Your task to perform on an android device: Open Google Maps Image 0: 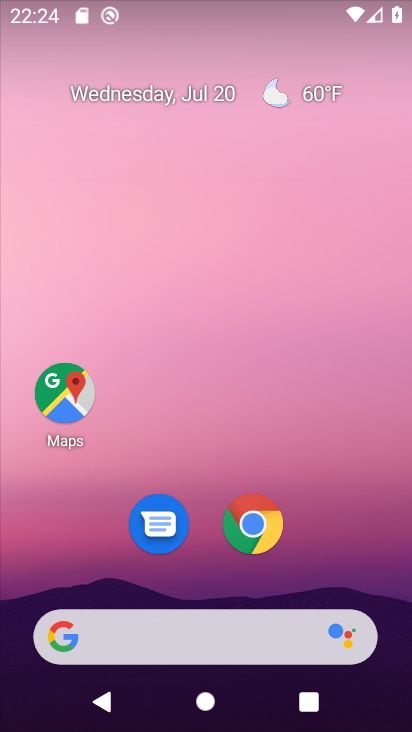
Step 0: drag from (331, 529) to (346, 31)
Your task to perform on an android device: Open Google Maps Image 1: 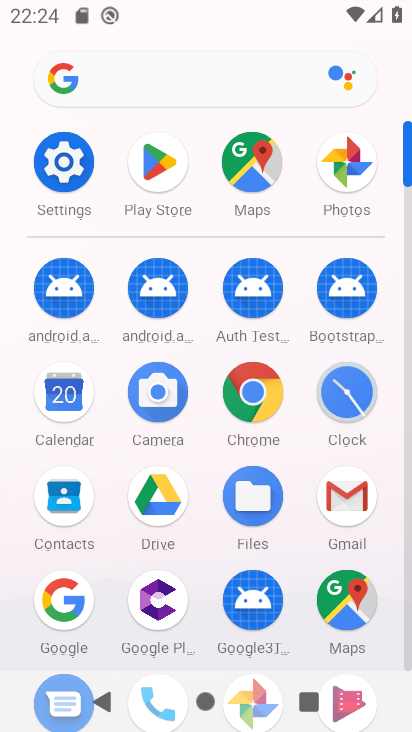
Step 1: click (260, 164)
Your task to perform on an android device: Open Google Maps Image 2: 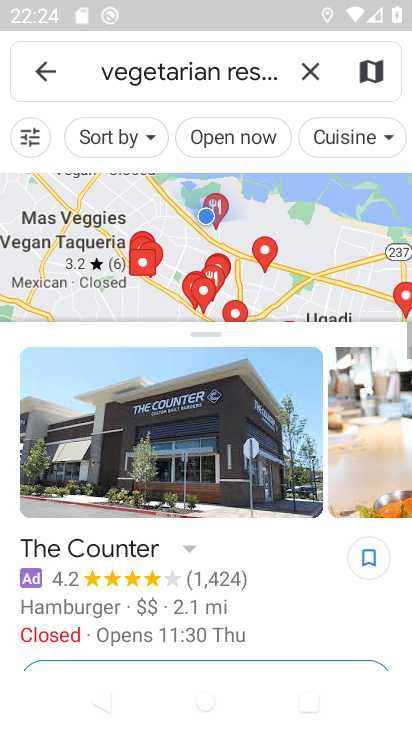
Step 2: click (315, 62)
Your task to perform on an android device: Open Google Maps Image 3: 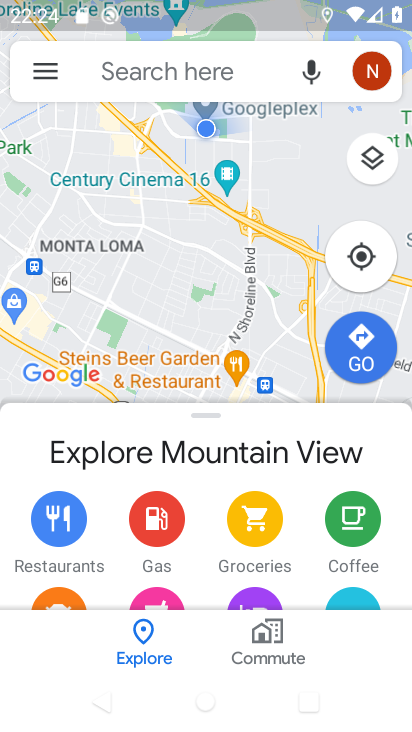
Step 3: task complete